Your task to perform on an android device: Search for seafood restaurants on Google Maps Image 0: 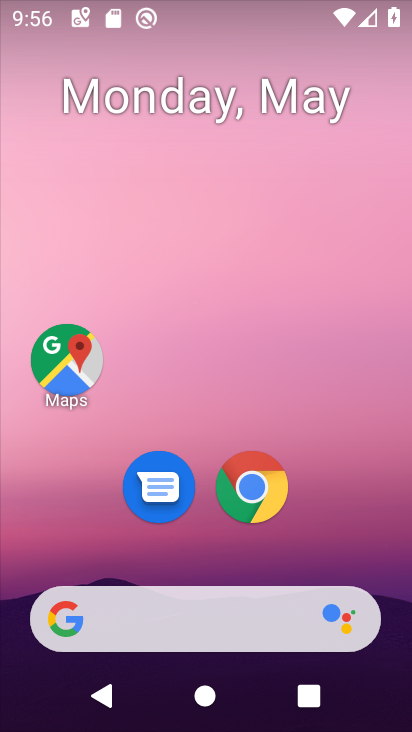
Step 0: drag from (240, 574) to (318, 25)
Your task to perform on an android device: Search for seafood restaurants on Google Maps Image 1: 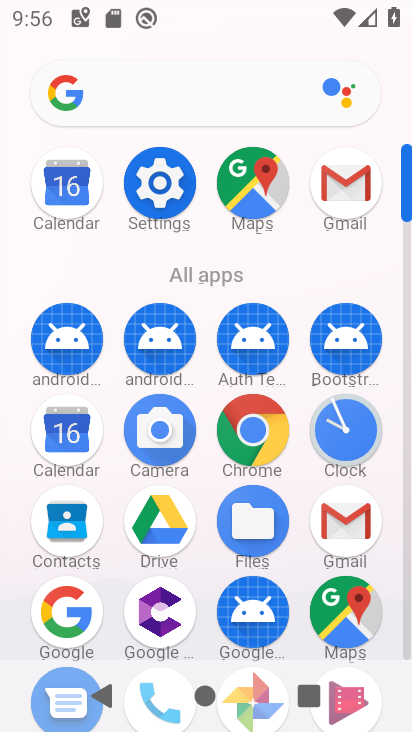
Step 1: click (345, 605)
Your task to perform on an android device: Search for seafood restaurants on Google Maps Image 2: 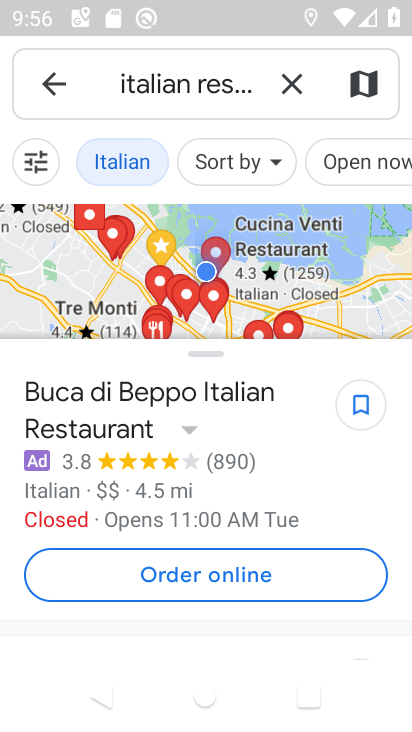
Step 2: click (294, 90)
Your task to perform on an android device: Search for seafood restaurants on Google Maps Image 3: 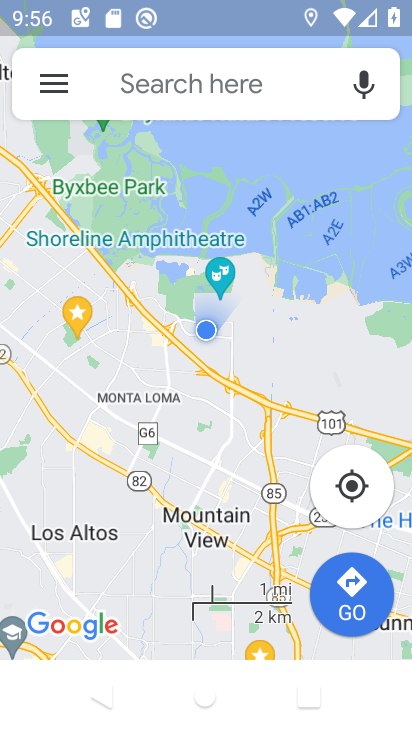
Step 3: click (254, 84)
Your task to perform on an android device: Search for seafood restaurants on Google Maps Image 4: 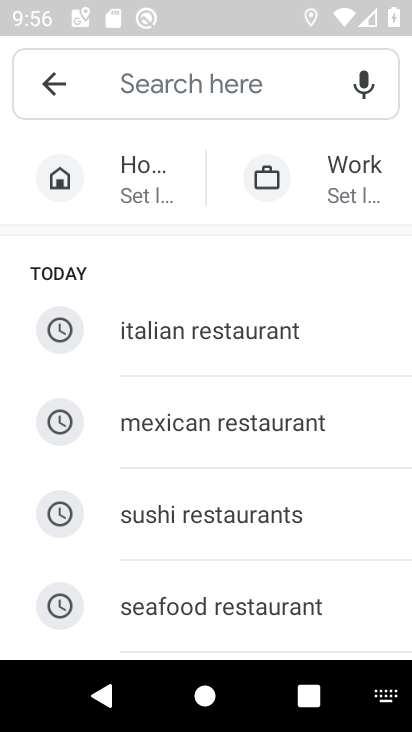
Step 4: type "seafood restaurant"
Your task to perform on an android device: Search for seafood restaurants on Google Maps Image 5: 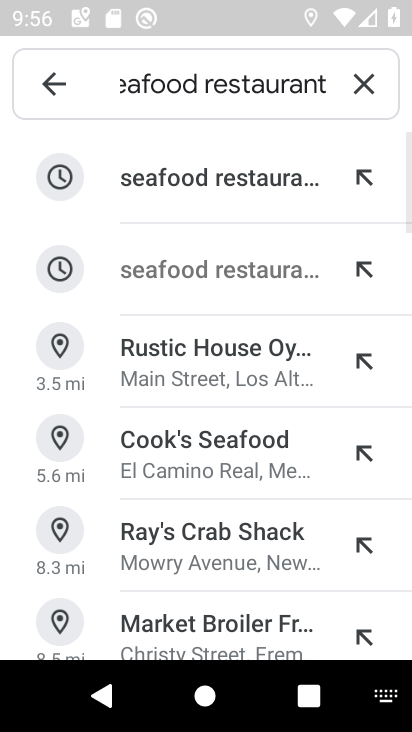
Step 5: click (163, 180)
Your task to perform on an android device: Search for seafood restaurants on Google Maps Image 6: 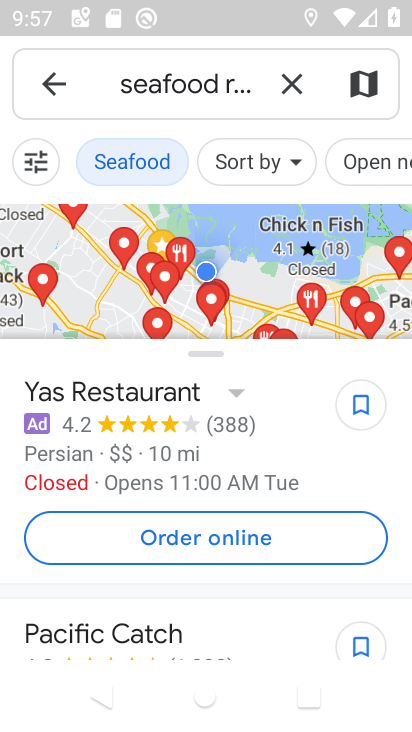
Step 6: task complete